Your task to perform on an android device: Add "alienware area 51" to the cart on costco.com Image 0: 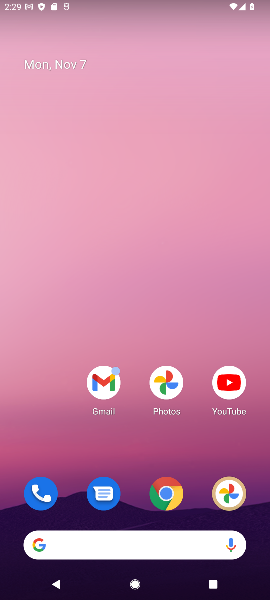
Step 0: press home button
Your task to perform on an android device: Add "alienware area 51" to the cart on costco.com Image 1: 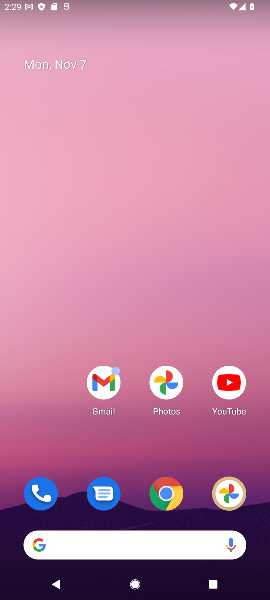
Step 1: drag from (132, 472) to (153, 48)
Your task to perform on an android device: Add "alienware area 51" to the cart on costco.com Image 2: 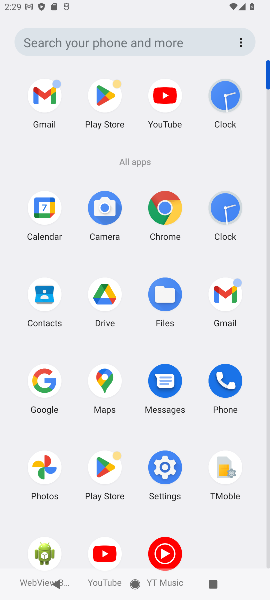
Step 2: click (163, 201)
Your task to perform on an android device: Add "alienware area 51" to the cart on costco.com Image 3: 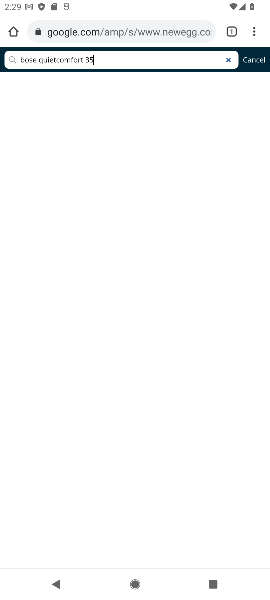
Step 3: click (129, 34)
Your task to perform on an android device: Add "alienware area 51" to the cart on costco.com Image 4: 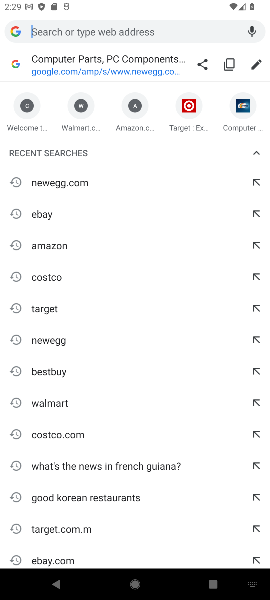
Step 4: type "costco.com"
Your task to perform on an android device: Add "alienware area 51" to the cart on costco.com Image 5: 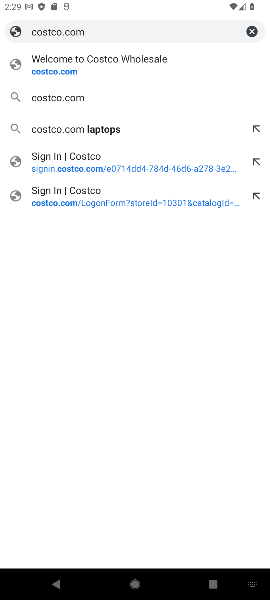
Step 5: click (87, 66)
Your task to perform on an android device: Add "alienware area 51" to the cart on costco.com Image 6: 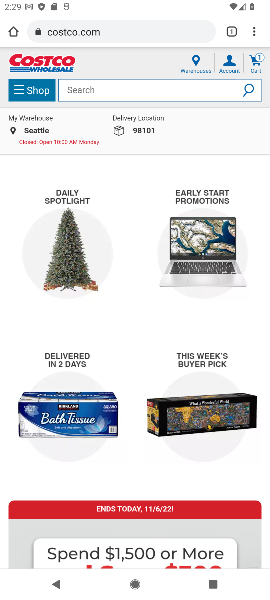
Step 6: click (99, 89)
Your task to perform on an android device: Add "alienware area 51" to the cart on costco.com Image 7: 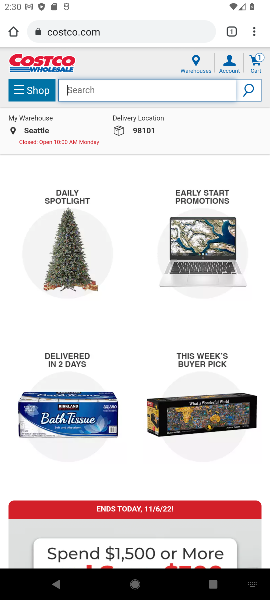
Step 7: type "alienware area 51"
Your task to perform on an android device: Add "alienware area 51" to the cart on costco.com Image 8: 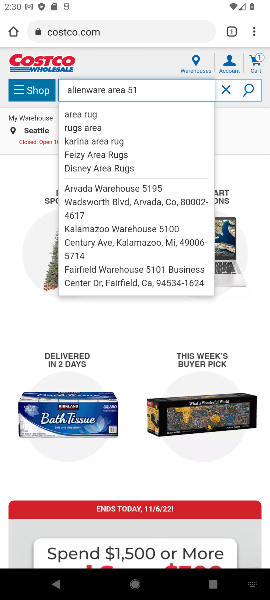
Step 8: click (133, 191)
Your task to perform on an android device: Add "alienware area 51" to the cart on costco.com Image 9: 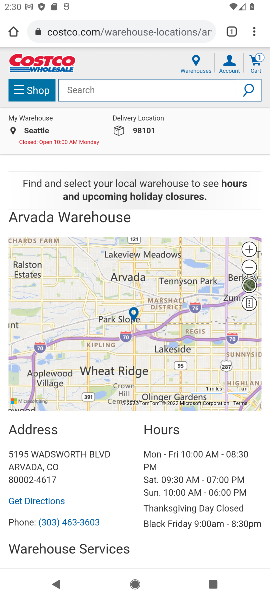
Step 9: drag from (138, 558) to (179, 278)
Your task to perform on an android device: Add "alienware area 51" to the cart on costco.com Image 10: 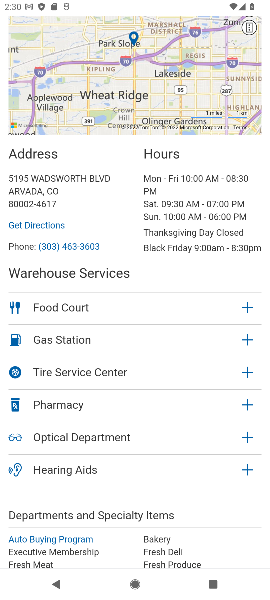
Step 10: drag from (134, 498) to (154, 134)
Your task to perform on an android device: Add "alienware area 51" to the cart on costco.com Image 11: 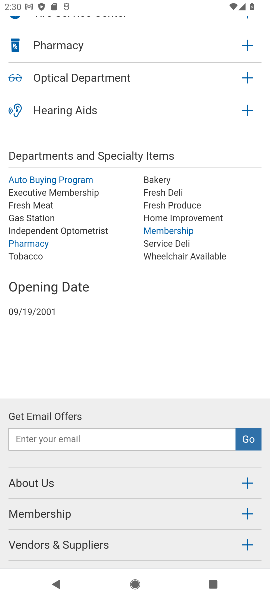
Step 11: drag from (132, 131) to (152, 578)
Your task to perform on an android device: Add "alienware area 51" to the cart on costco.com Image 12: 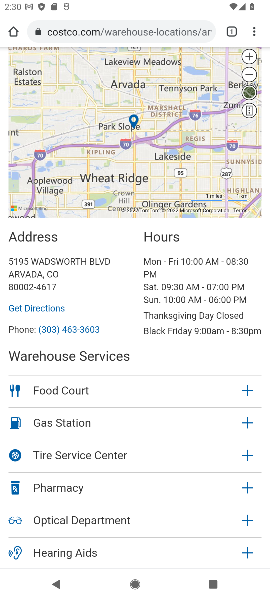
Step 12: drag from (140, 95) to (139, 581)
Your task to perform on an android device: Add "alienware area 51" to the cart on costco.com Image 13: 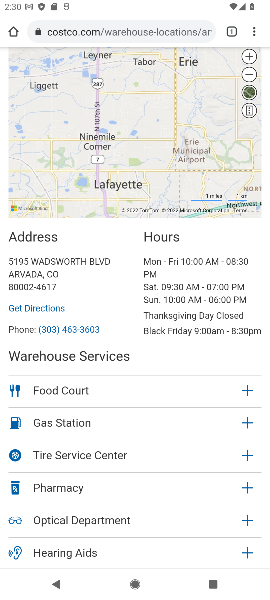
Step 13: drag from (137, 236) to (124, 586)
Your task to perform on an android device: Add "alienware area 51" to the cart on costco.com Image 14: 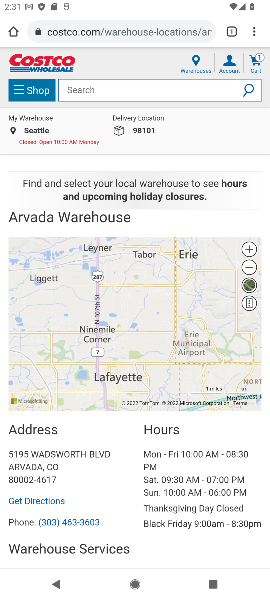
Step 14: click (110, 88)
Your task to perform on an android device: Add "alienware area 51" to the cart on costco.com Image 15: 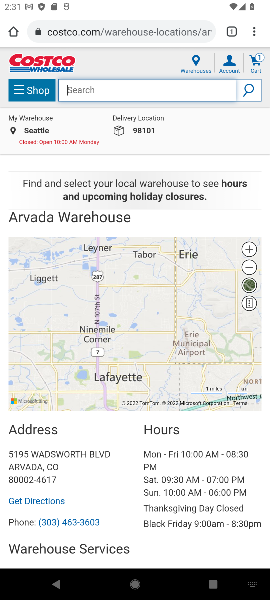
Step 15: type "alienware area 51"
Your task to perform on an android device: Add "alienware area 51" to the cart on costco.com Image 16: 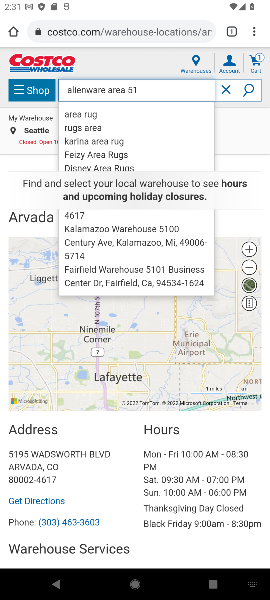
Step 16: task complete